Your task to perform on an android device: open app "Grab" (install if not already installed) and go to login screen Image 0: 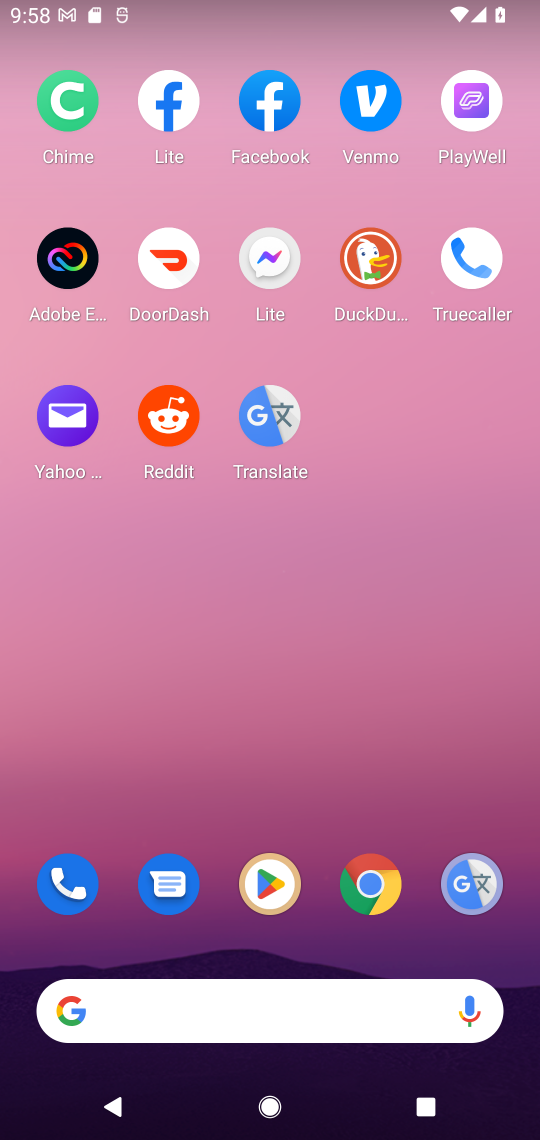
Step 0: click (273, 911)
Your task to perform on an android device: open app "Grab" (install if not already installed) and go to login screen Image 1: 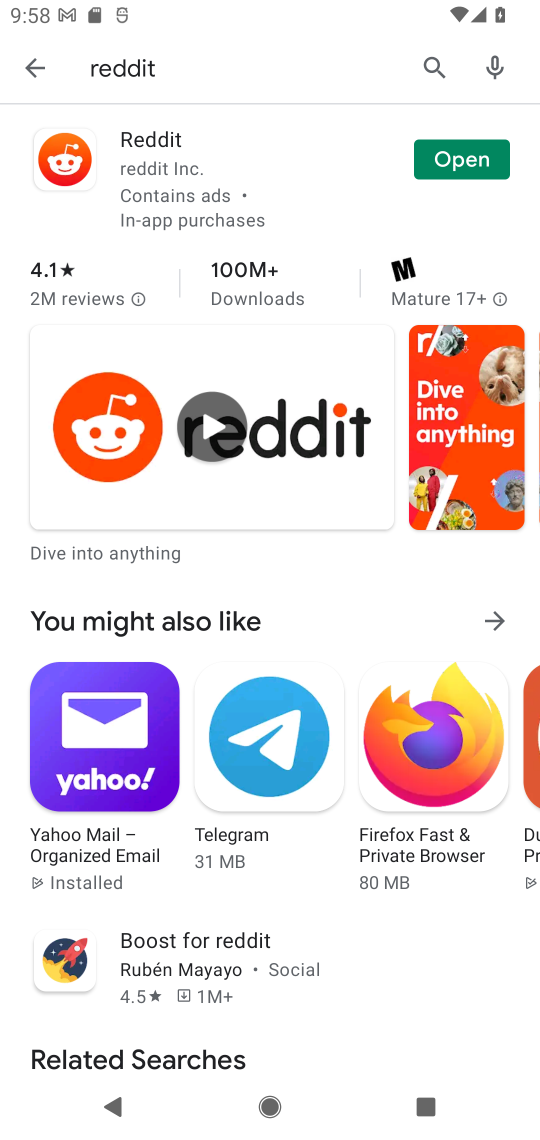
Step 1: click (433, 62)
Your task to perform on an android device: open app "Grab" (install if not already installed) and go to login screen Image 2: 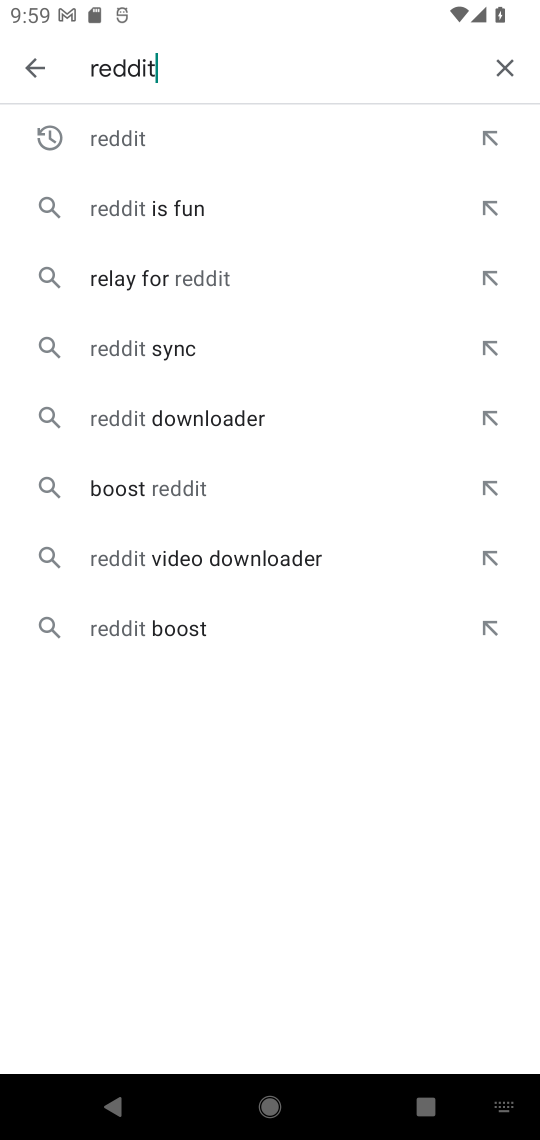
Step 2: click (508, 62)
Your task to perform on an android device: open app "Grab" (install if not already installed) and go to login screen Image 3: 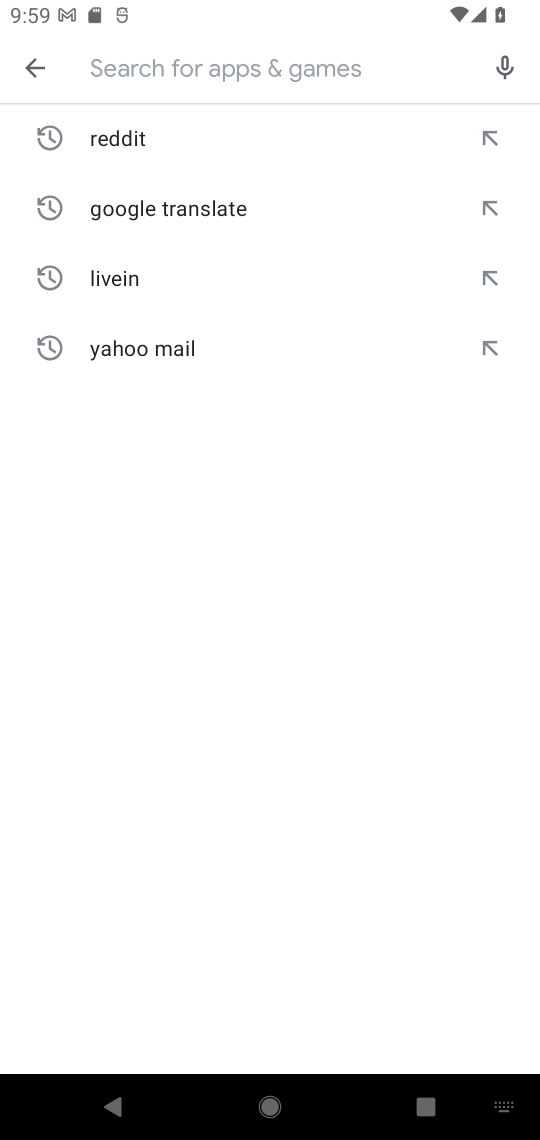
Step 3: type "grab"
Your task to perform on an android device: open app "Grab" (install if not already installed) and go to login screen Image 4: 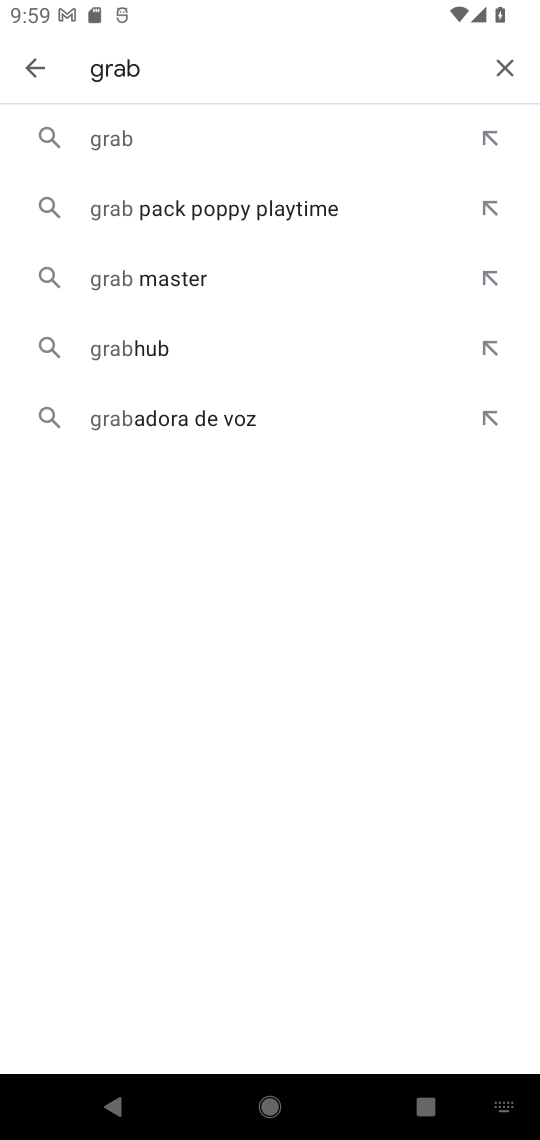
Step 4: click (247, 138)
Your task to perform on an android device: open app "Grab" (install if not already installed) and go to login screen Image 5: 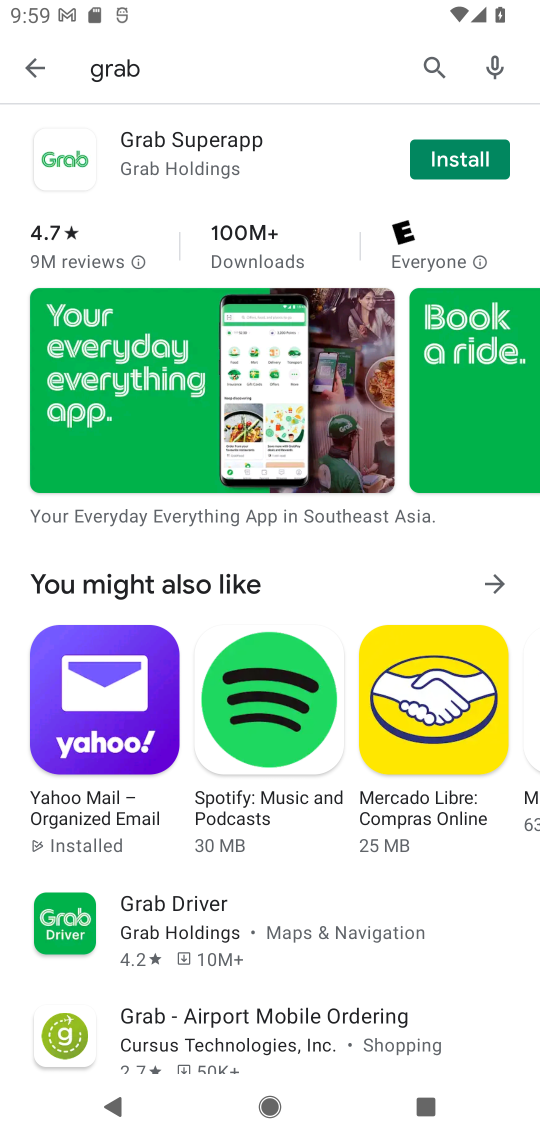
Step 5: click (456, 163)
Your task to perform on an android device: open app "Grab" (install if not already installed) and go to login screen Image 6: 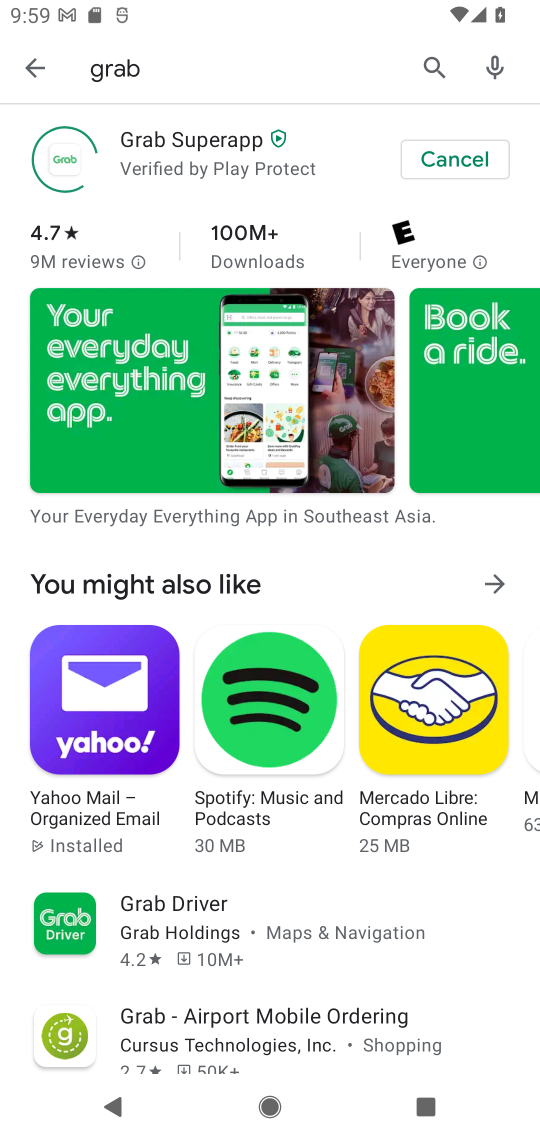
Step 6: task complete